Your task to perform on an android device: Go to Google Image 0: 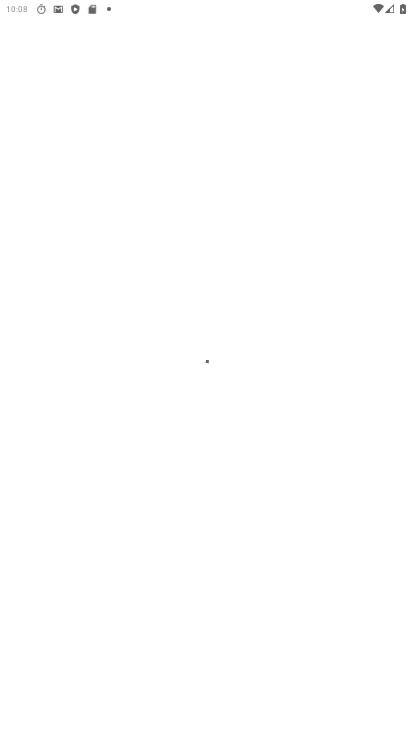
Step 0: press home button
Your task to perform on an android device: Go to Google Image 1: 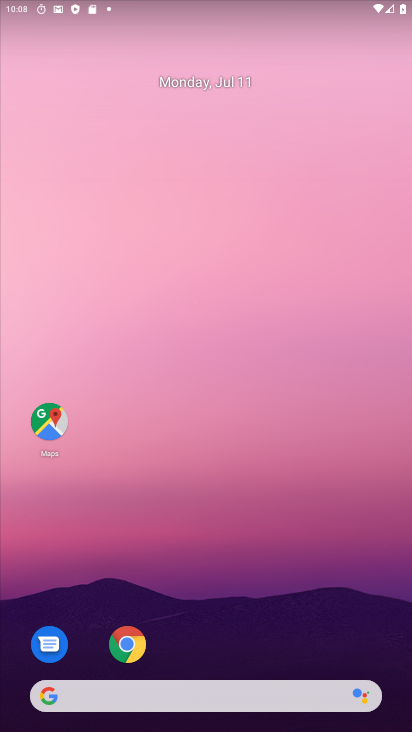
Step 1: drag from (224, 658) to (257, 143)
Your task to perform on an android device: Go to Google Image 2: 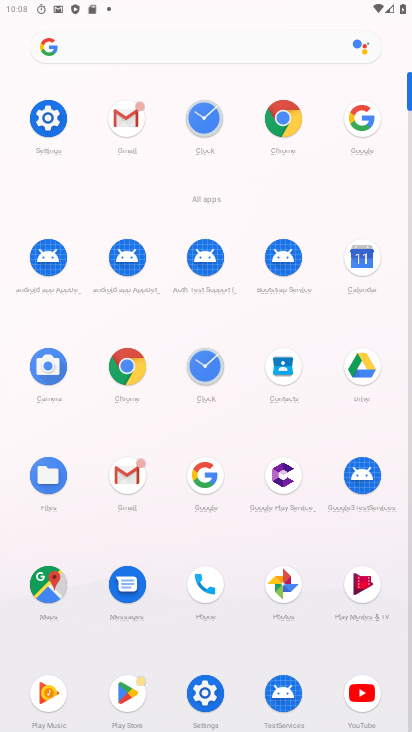
Step 2: click (360, 120)
Your task to perform on an android device: Go to Google Image 3: 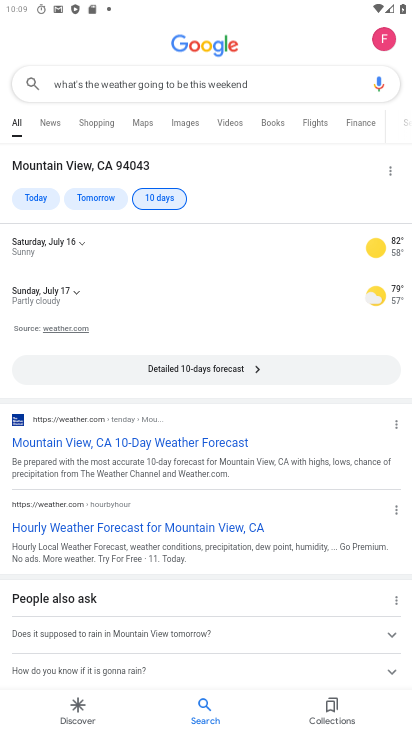
Step 3: task complete